Your task to perform on an android device: open chrome privacy settings Image 0: 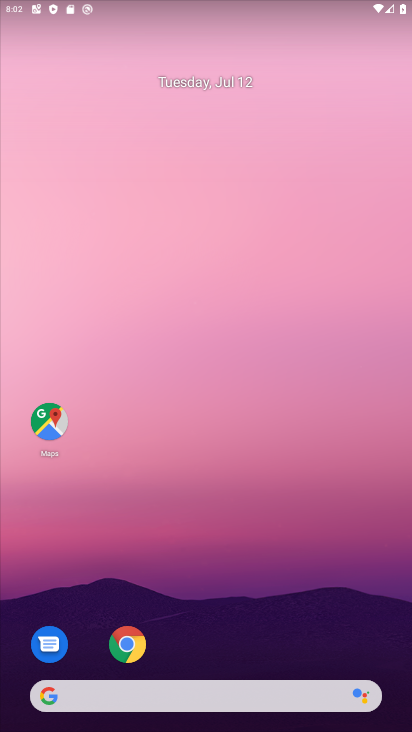
Step 0: drag from (171, 619) to (215, 149)
Your task to perform on an android device: open chrome privacy settings Image 1: 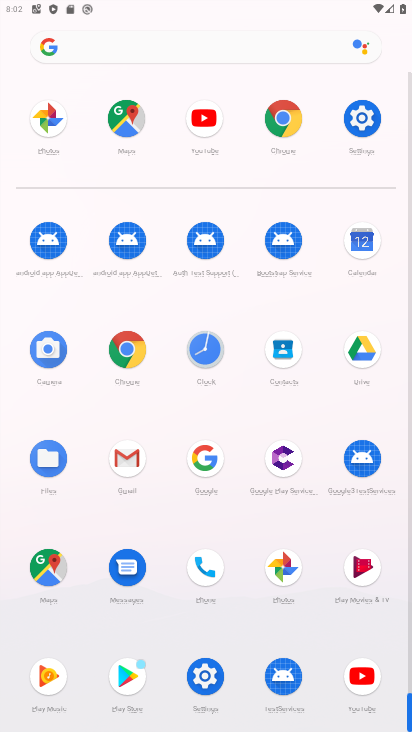
Step 1: click (195, 676)
Your task to perform on an android device: open chrome privacy settings Image 2: 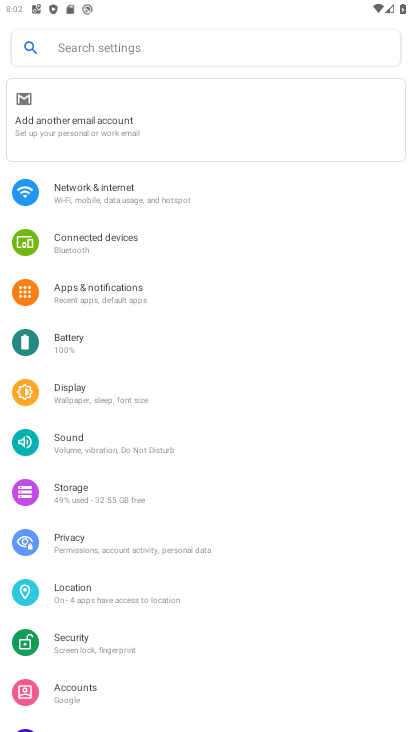
Step 2: click (79, 537)
Your task to perform on an android device: open chrome privacy settings Image 3: 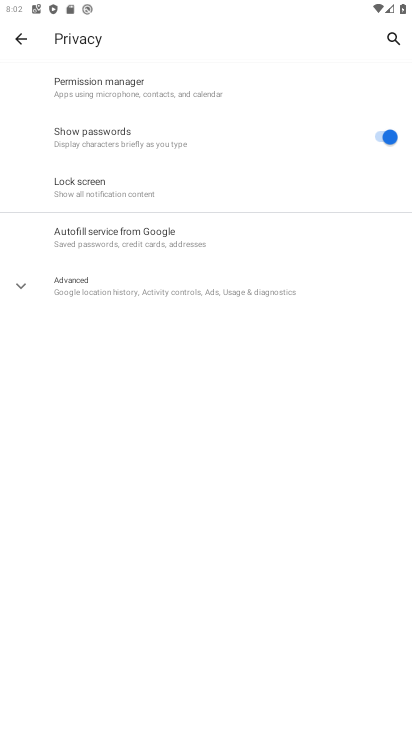
Step 3: task complete